Your task to perform on an android device: Open eBay Image 0: 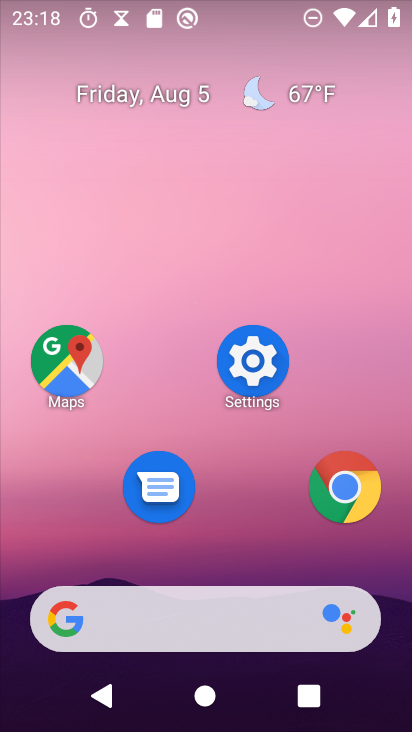
Step 0: click (344, 492)
Your task to perform on an android device: Open eBay Image 1: 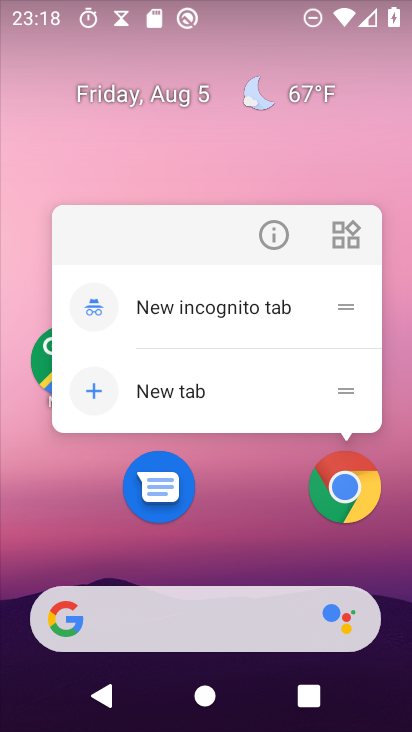
Step 1: click (344, 492)
Your task to perform on an android device: Open eBay Image 2: 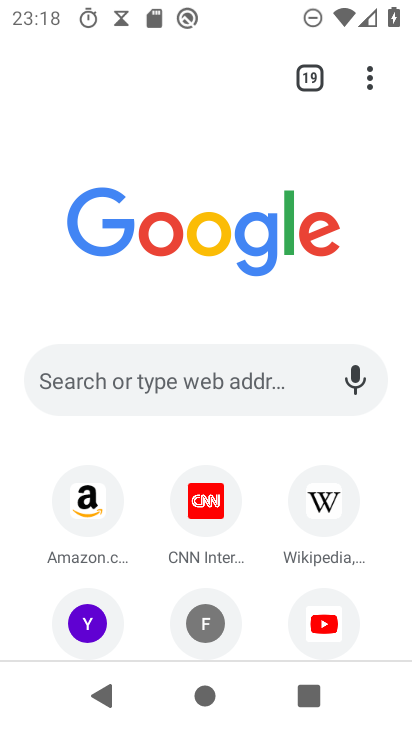
Step 2: drag from (258, 565) to (261, 529)
Your task to perform on an android device: Open eBay Image 3: 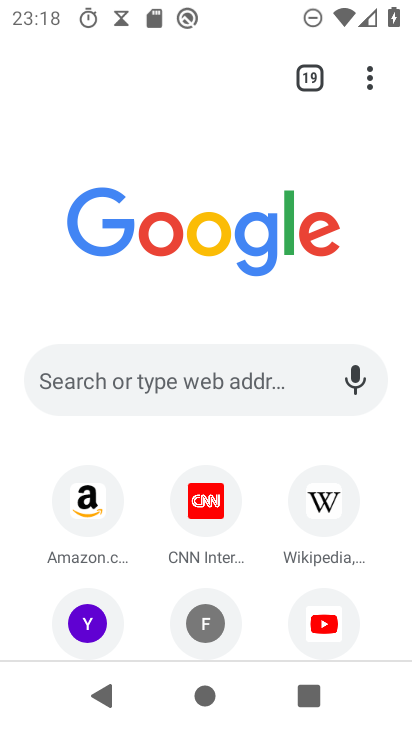
Step 3: click (76, 351)
Your task to perform on an android device: Open eBay Image 4: 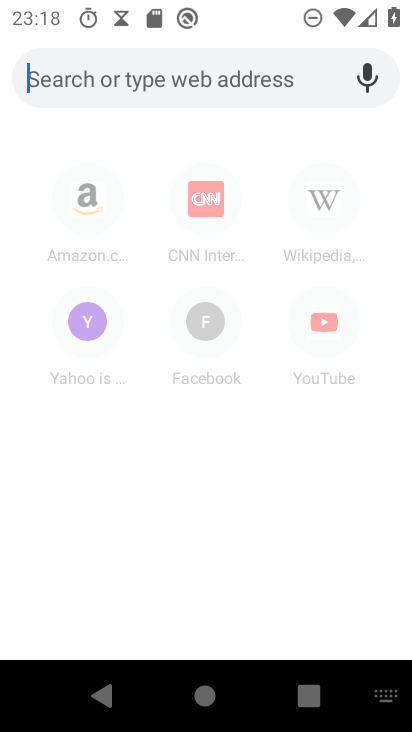
Step 4: type "eBay"
Your task to perform on an android device: Open eBay Image 5: 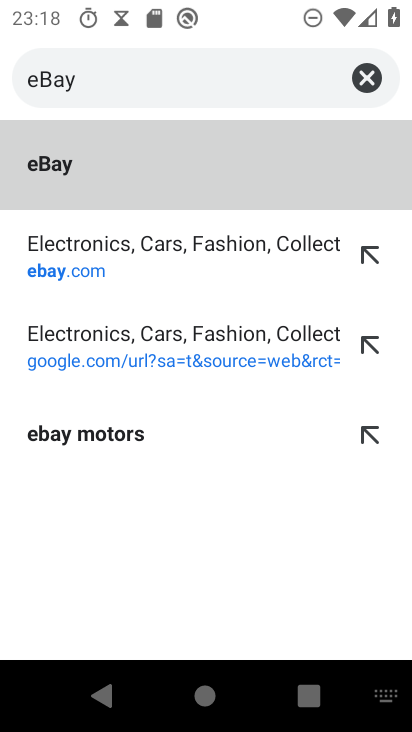
Step 5: click (89, 245)
Your task to perform on an android device: Open eBay Image 6: 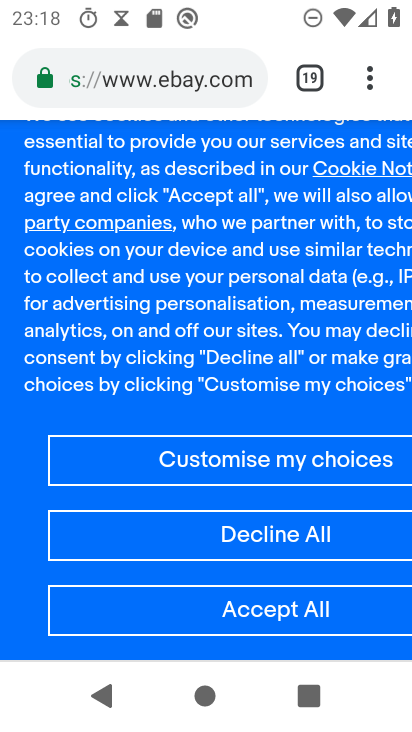
Step 6: click (244, 632)
Your task to perform on an android device: Open eBay Image 7: 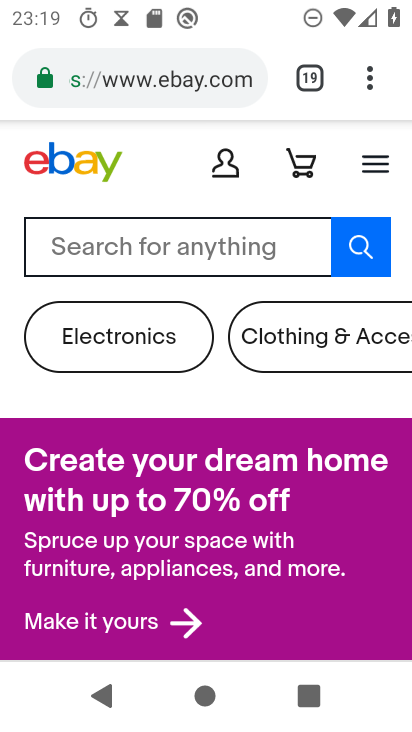
Step 7: task complete